Your task to perform on an android device: change the clock display to analog Image 0: 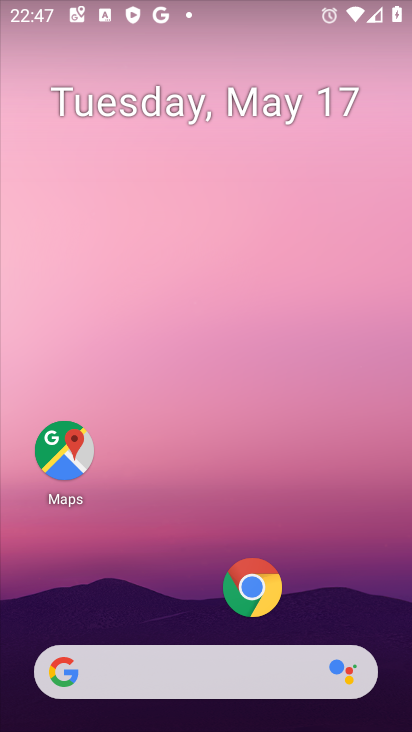
Step 0: drag from (185, 571) to (256, 106)
Your task to perform on an android device: change the clock display to analog Image 1: 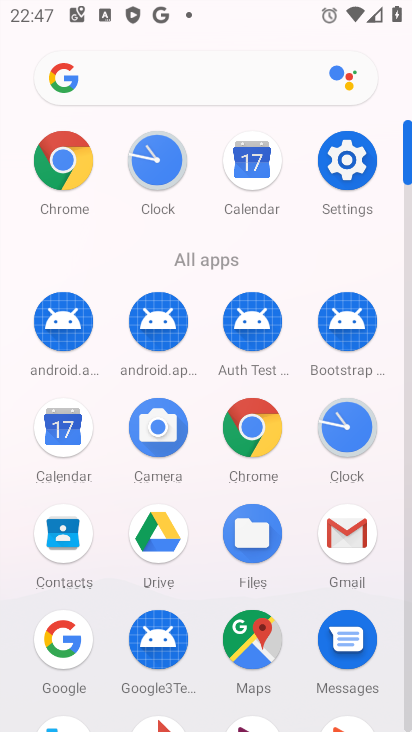
Step 1: click (363, 435)
Your task to perform on an android device: change the clock display to analog Image 2: 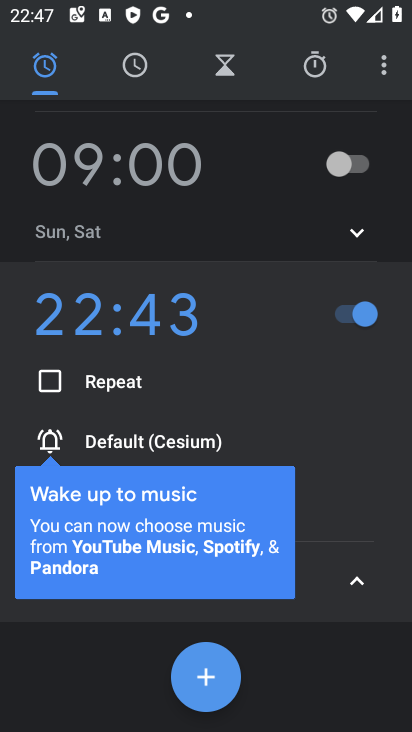
Step 2: click (384, 70)
Your task to perform on an android device: change the clock display to analog Image 3: 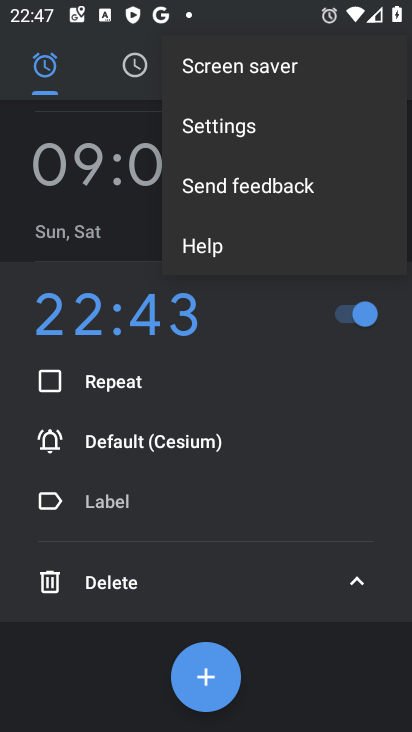
Step 3: click (278, 141)
Your task to perform on an android device: change the clock display to analog Image 4: 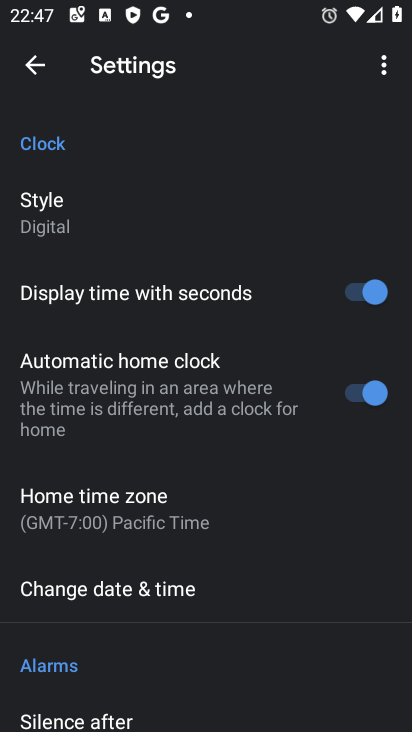
Step 4: click (174, 230)
Your task to perform on an android device: change the clock display to analog Image 5: 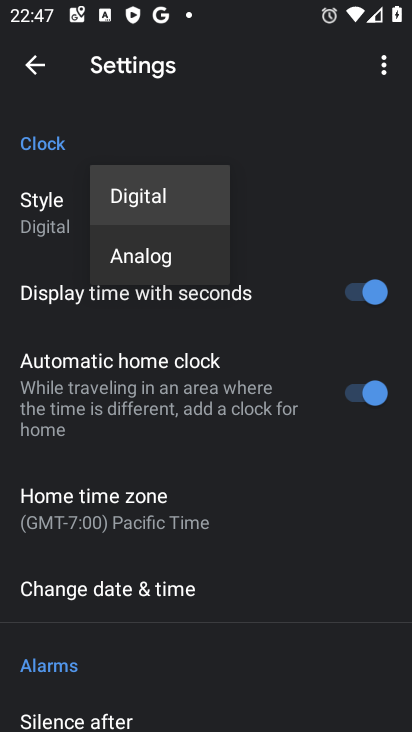
Step 5: click (148, 250)
Your task to perform on an android device: change the clock display to analog Image 6: 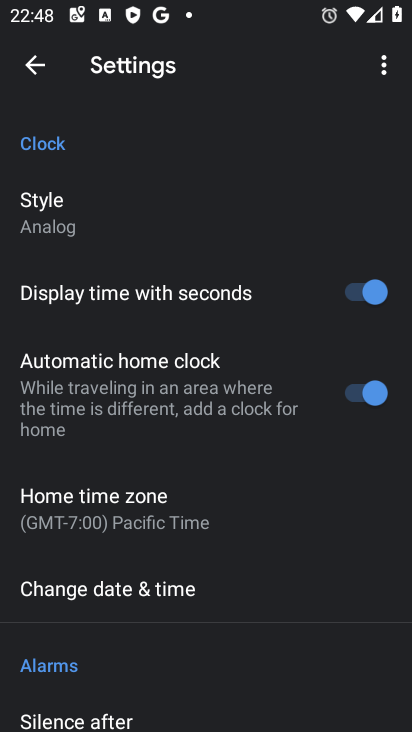
Step 6: task complete